Your task to perform on an android device: Open internet settings Image 0: 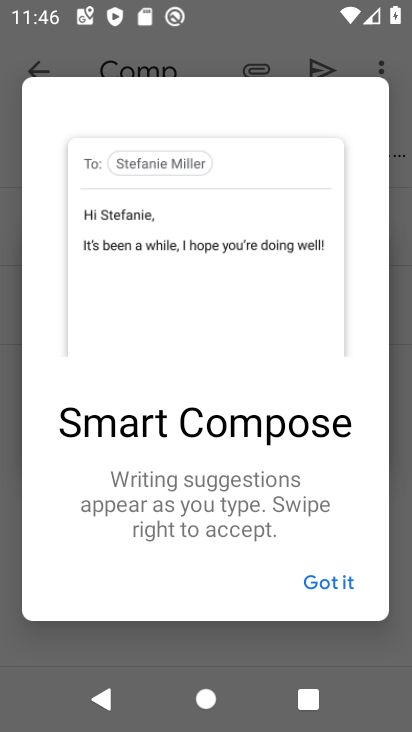
Step 0: press home button
Your task to perform on an android device: Open internet settings Image 1: 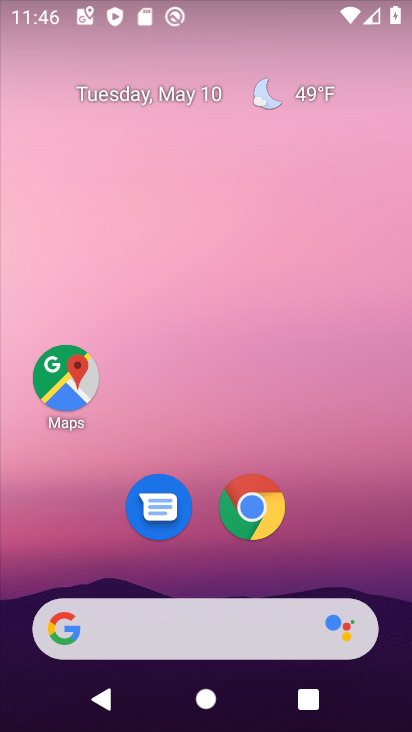
Step 1: drag from (208, 551) to (181, 64)
Your task to perform on an android device: Open internet settings Image 2: 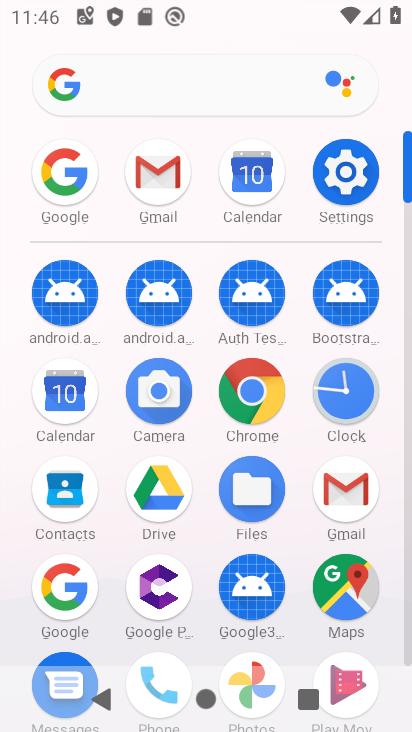
Step 2: click (344, 173)
Your task to perform on an android device: Open internet settings Image 3: 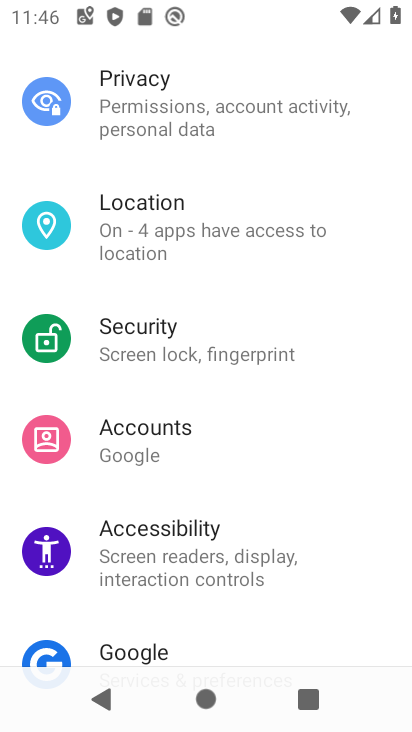
Step 3: drag from (172, 161) to (167, 726)
Your task to perform on an android device: Open internet settings Image 4: 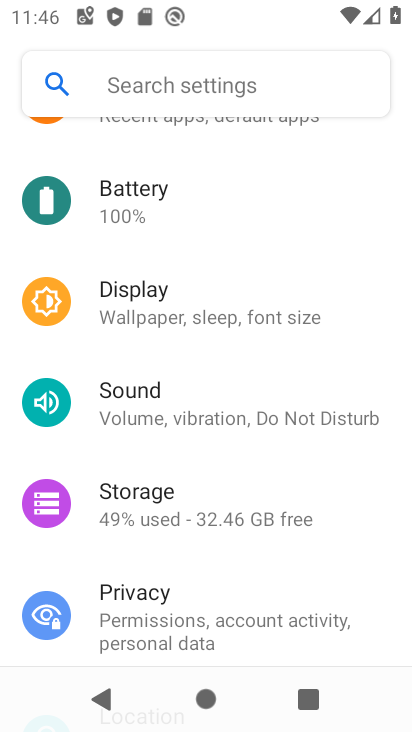
Step 4: drag from (137, 223) to (200, 706)
Your task to perform on an android device: Open internet settings Image 5: 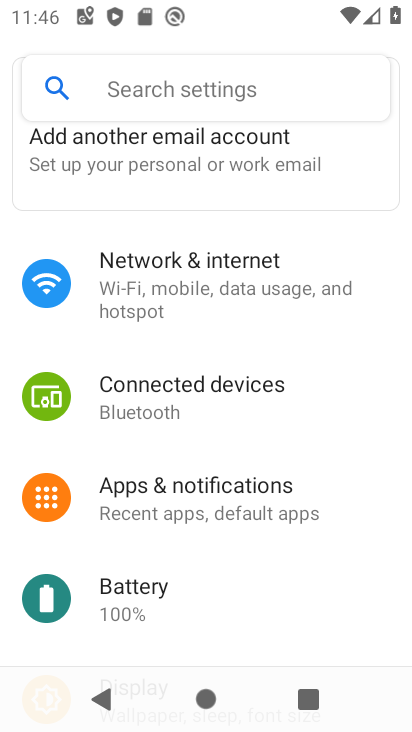
Step 5: click (180, 283)
Your task to perform on an android device: Open internet settings Image 6: 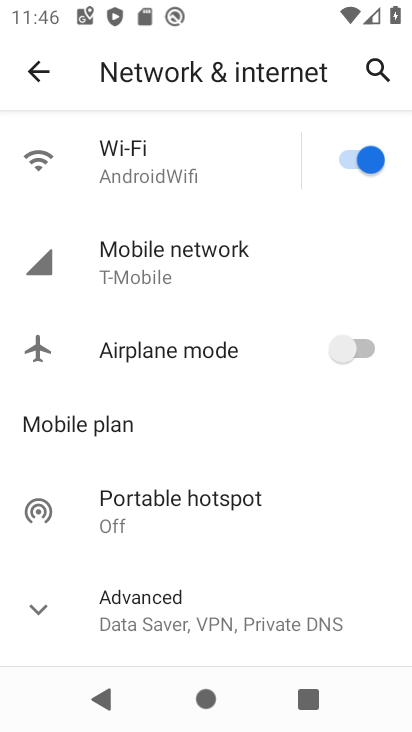
Step 6: click (148, 164)
Your task to perform on an android device: Open internet settings Image 7: 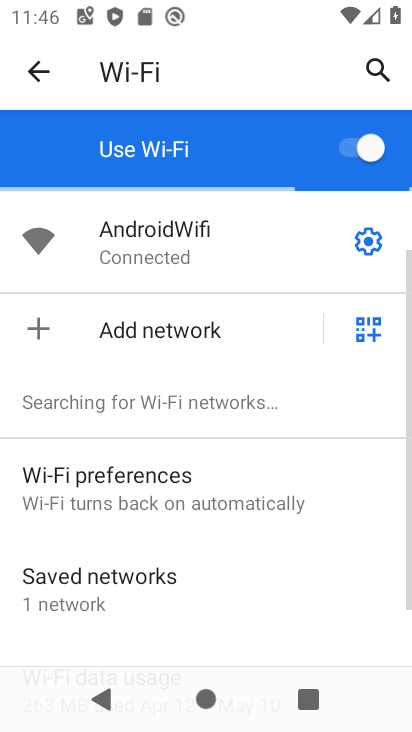
Step 7: click (370, 240)
Your task to perform on an android device: Open internet settings Image 8: 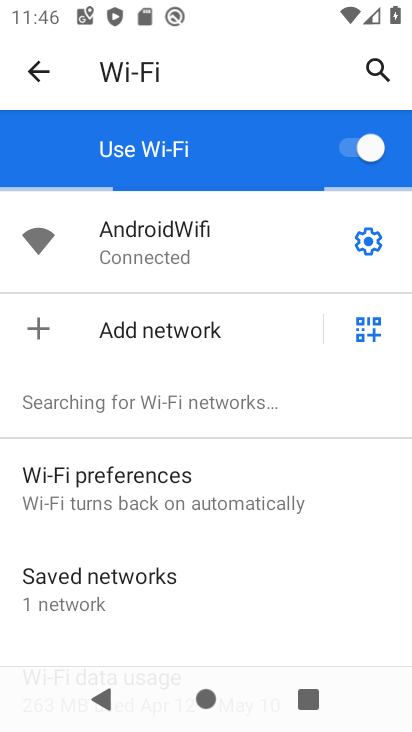
Step 8: click (362, 241)
Your task to perform on an android device: Open internet settings Image 9: 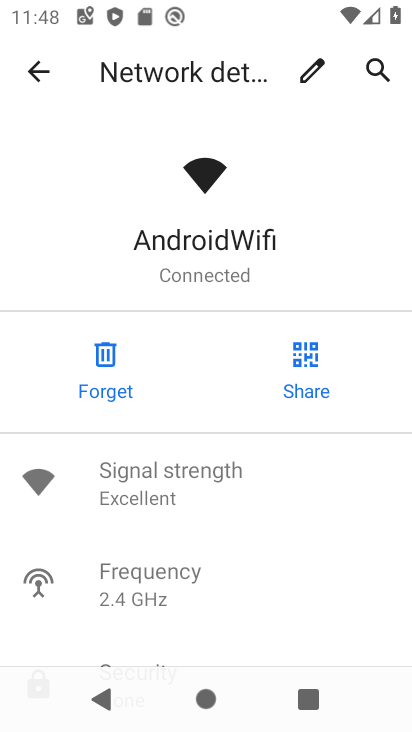
Step 9: task complete